Your task to perform on an android device: change timer sound Image 0: 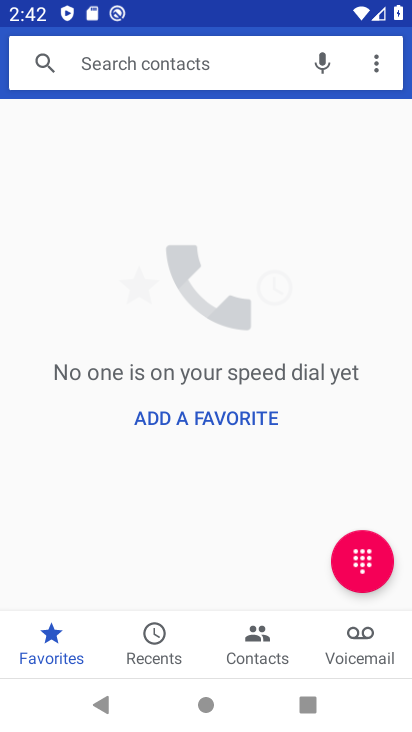
Step 0: press home button
Your task to perform on an android device: change timer sound Image 1: 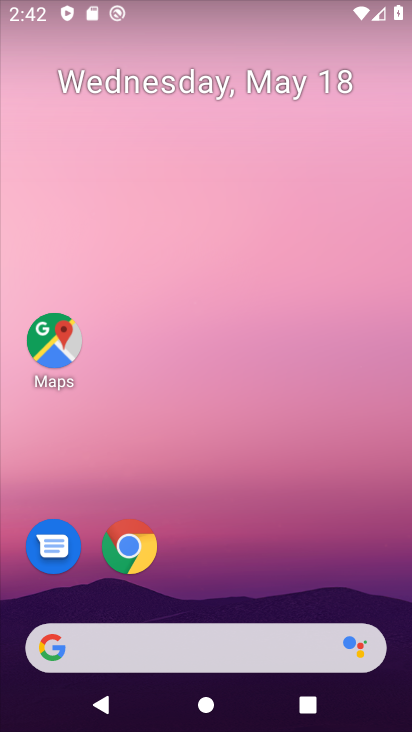
Step 1: drag from (232, 713) to (223, 203)
Your task to perform on an android device: change timer sound Image 2: 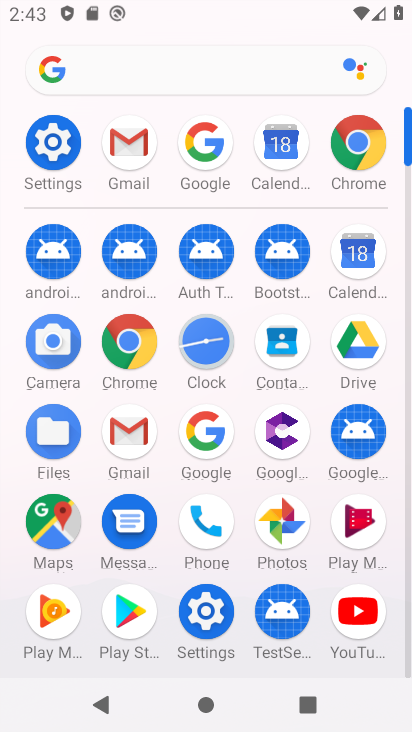
Step 2: click (54, 132)
Your task to perform on an android device: change timer sound Image 3: 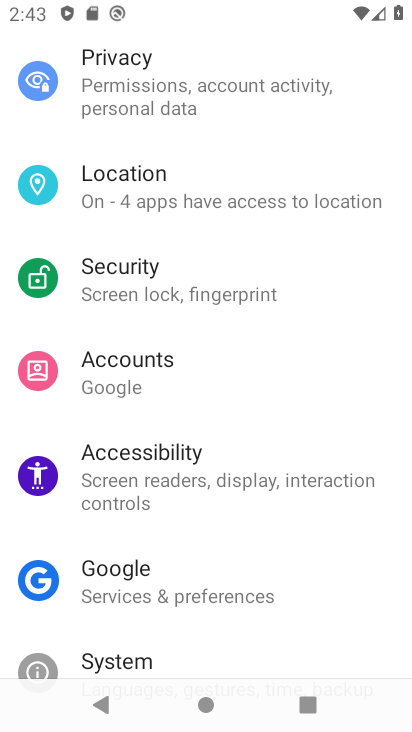
Step 3: drag from (202, 197) to (145, 522)
Your task to perform on an android device: change timer sound Image 4: 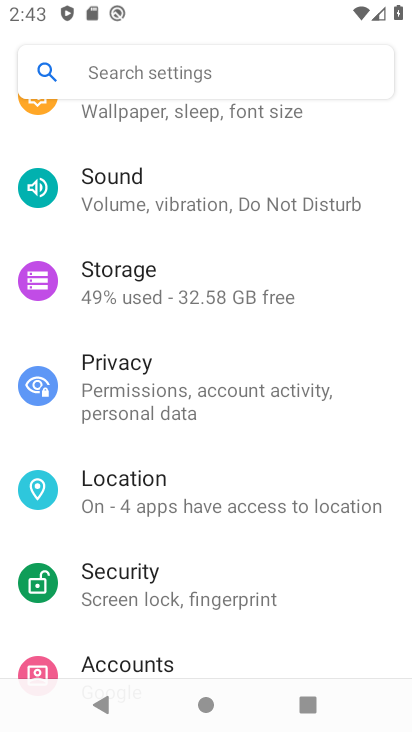
Step 4: click (129, 196)
Your task to perform on an android device: change timer sound Image 5: 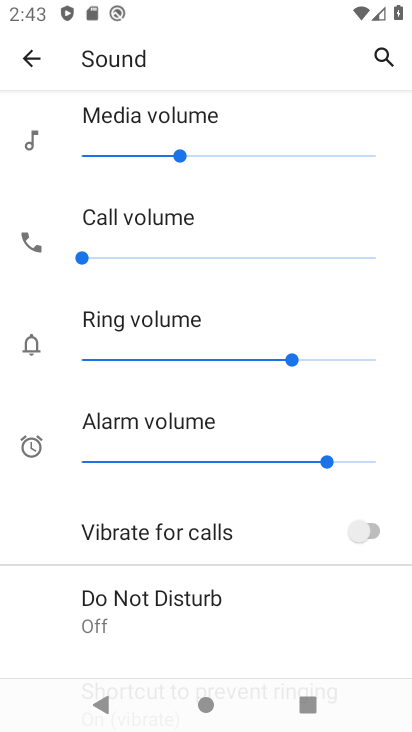
Step 5: task complete